Your task to perform on an android device: Play the new Maroon 5 video on YouTube Image 0: 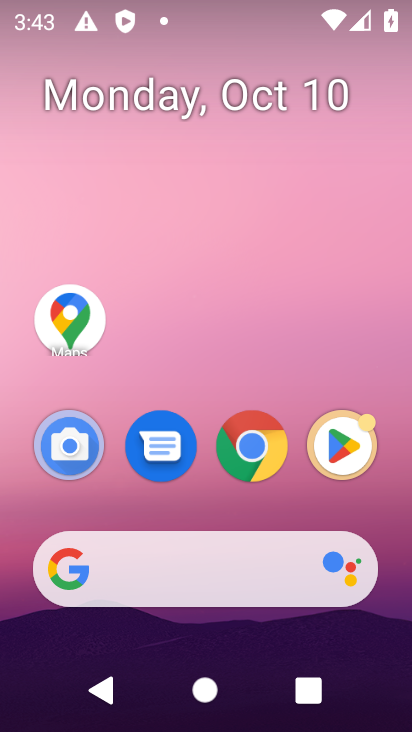
Step 0: drag from (196, 500) to (193, 108)
Your task to perform on an android device: Play the new Maroon 5 video on YouTube Image 1: 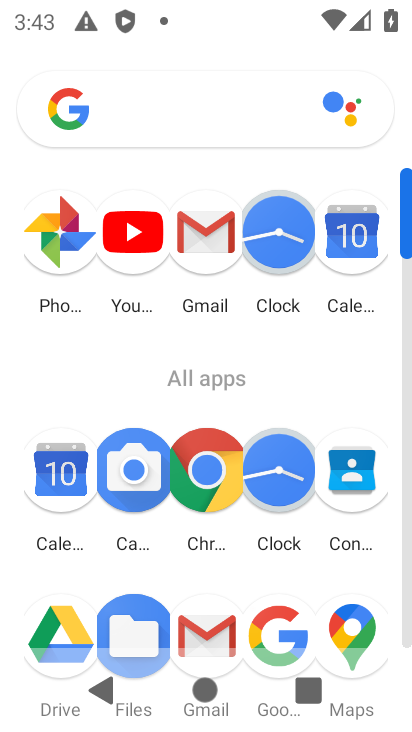
Step 1: click (128, 225)
Your task to perform on an android device: Play the new Maroon 5 video on YouTube Image 2: 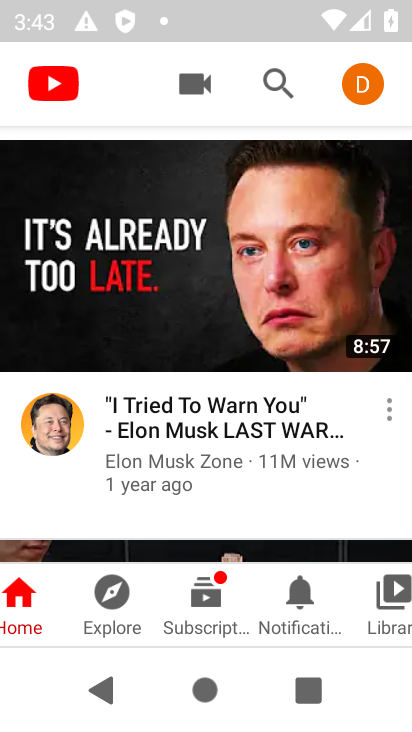
Step 2: click (273, 92)
Your task to perform on an android device: Play the new Maroon 5 video on YouTube Image 3: 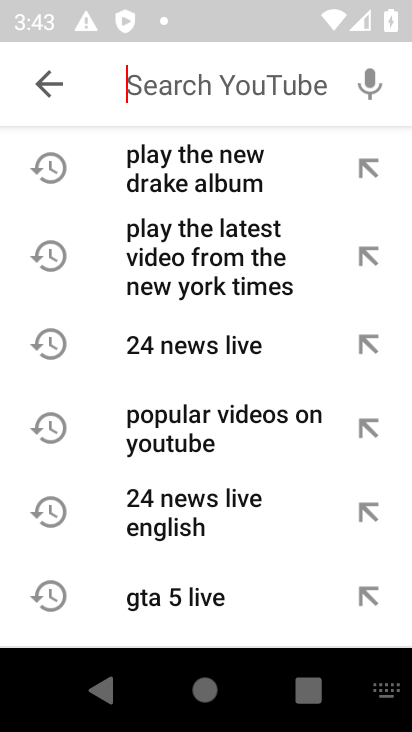
Step 3: type "new Maroon 5 video"
Your task to perform on an android device: Play the new Maroon 5 video on YouTube Image 4: 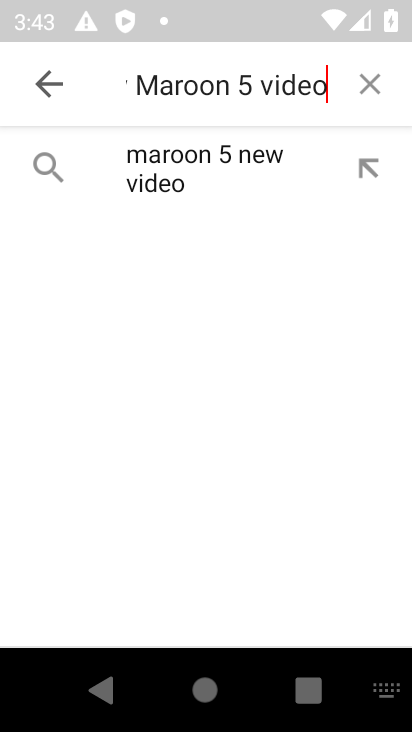
Step 4: type ""
Your task to perform on an android device: Play the new Maroon 5 video on YouTube Image 5: 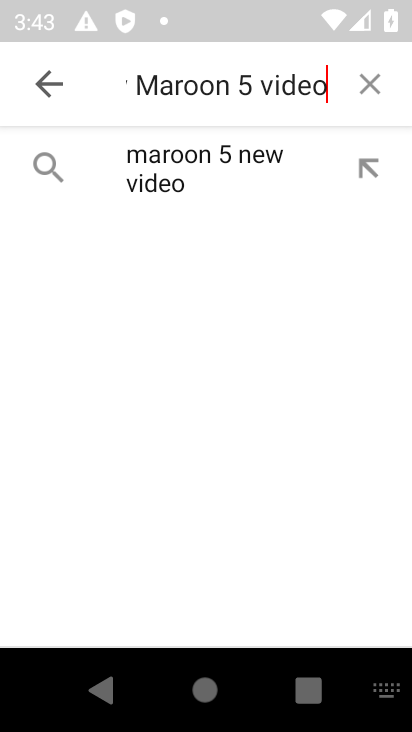
Step 5: click (231, 188)
Your task to perform on an android device: Play the new Maroon 5 video on YouTube Image 6: 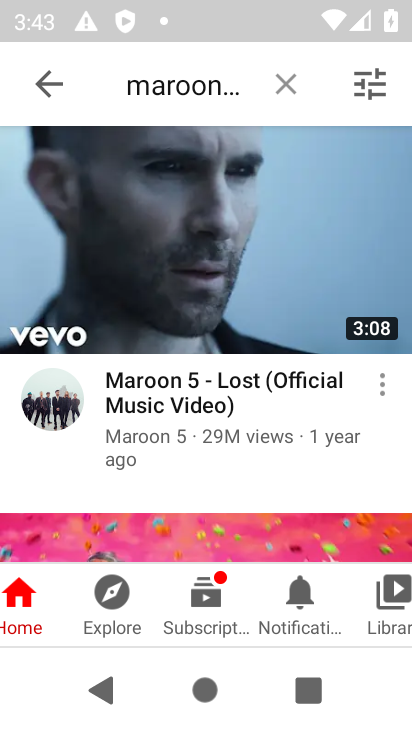
Step 6: click (215, 273)
Your task to perform on an android device: Play the new Maroon 5 video on YouTube Image 7: 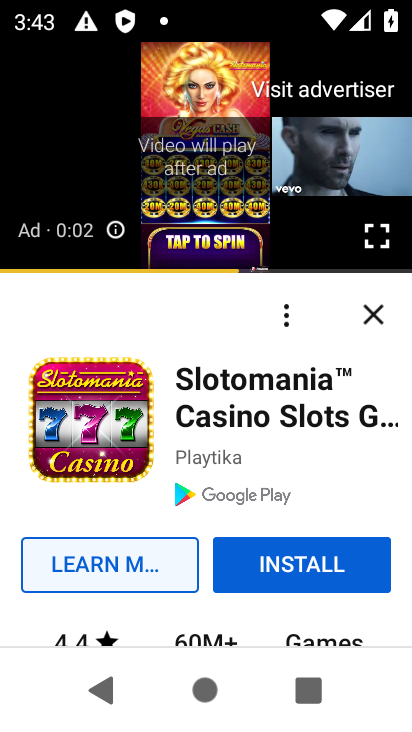
Step 7: click (199, 174)
Your task to perform on an android device: Play the new Maroon 5 video on YouTube Image 8: 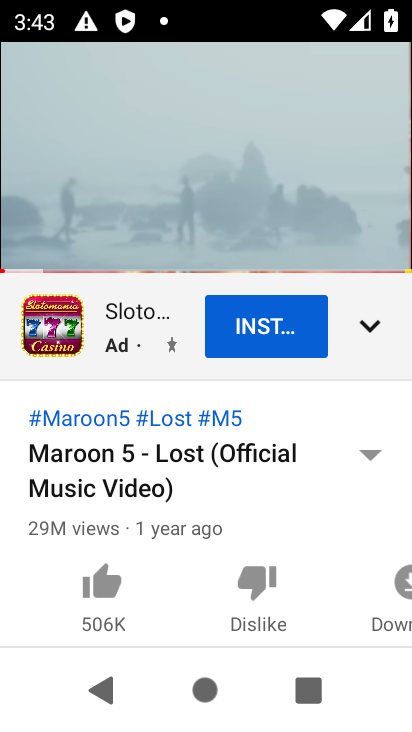
Step 8: click (196, 138)
Your task to perform on an android device: Play the new Maroon 5 video on YouTube Image 9: 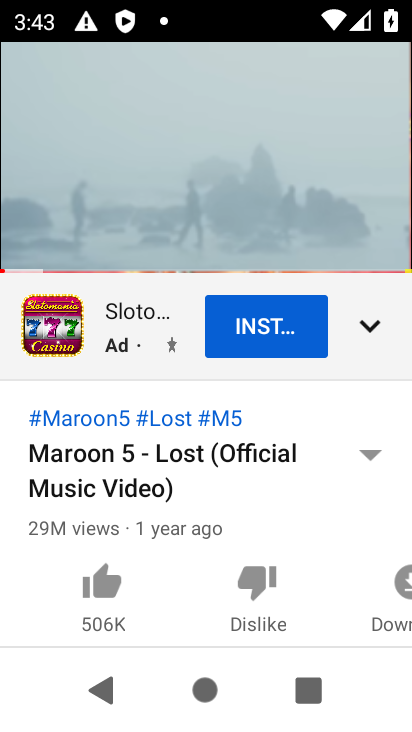
Step 9: click (206, 172)
Your task to perform on an android device: Play the new Maroon 5 video on YouTube Image 10: 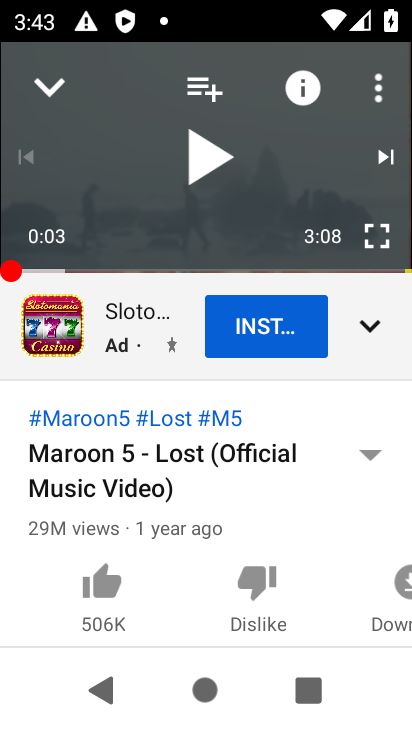
Step 10: click (206, 172)
Your task to perform on an android device: Play the new Maroon 5 video on YouTube Image 11: 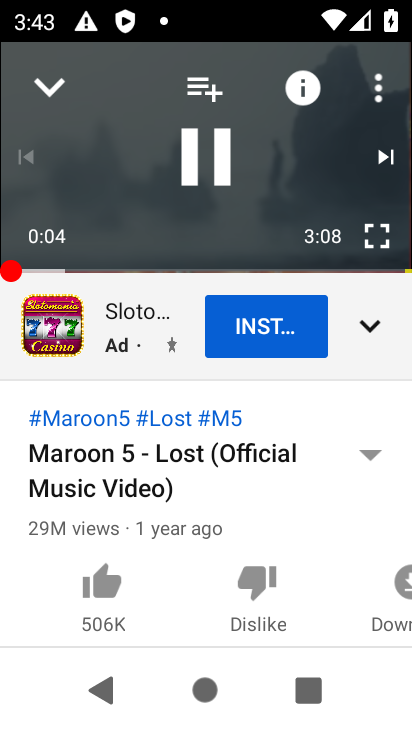
Step 11: click (206, 172)
Your task to perform on an android device: Play the new Maroon 5 video on YouTube Image 12: 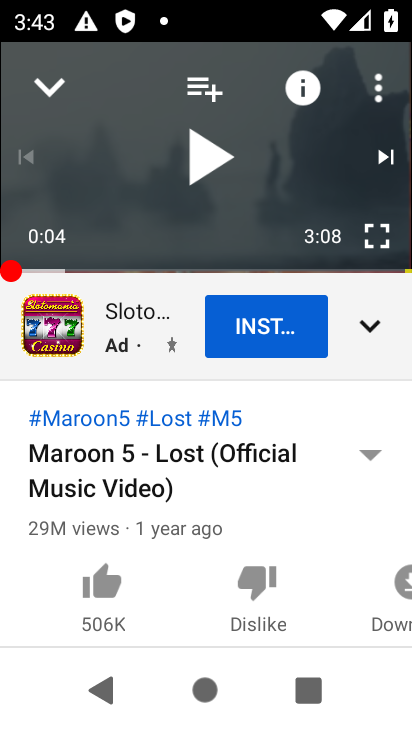
Step 12: task complete